Your task to perform on an android device: Open Reddit.com Image 0: 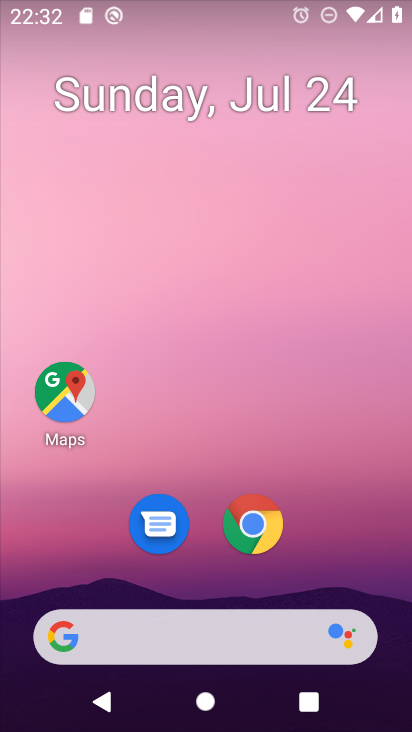
Step 0: click (250, 535)
Your task to perform on an android device: Open Reddit.com Image 1: 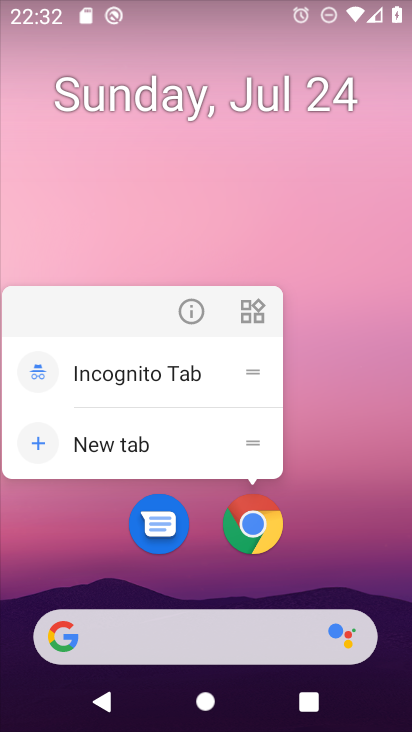
Step 1: click (251, 525)
Your task to perform on an android device: Open Reddit.com Image 2: 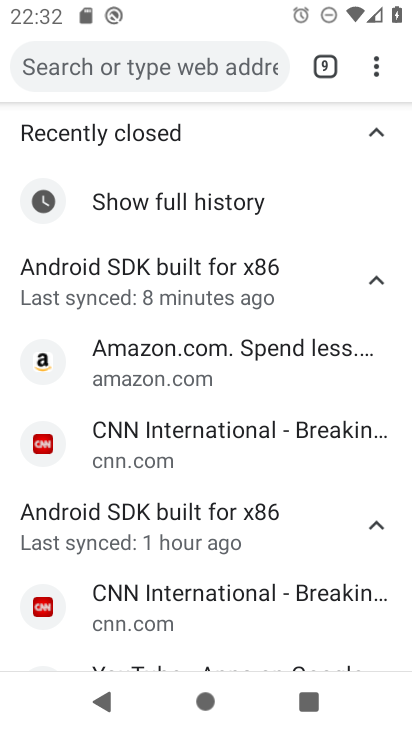
Step 2: drag from (373, 69) to (120, 133)
Your task to perform on an android device: Open Reddit.com Image 3: 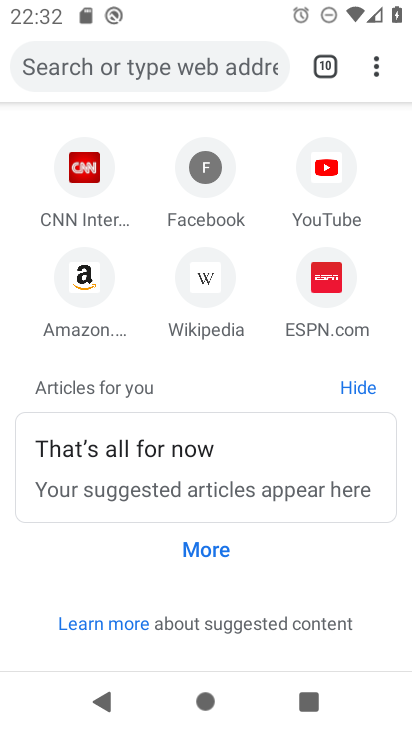
Step 3: click (160, 64)
Your task to perform on an android device: Open Reddit.com Image 4: 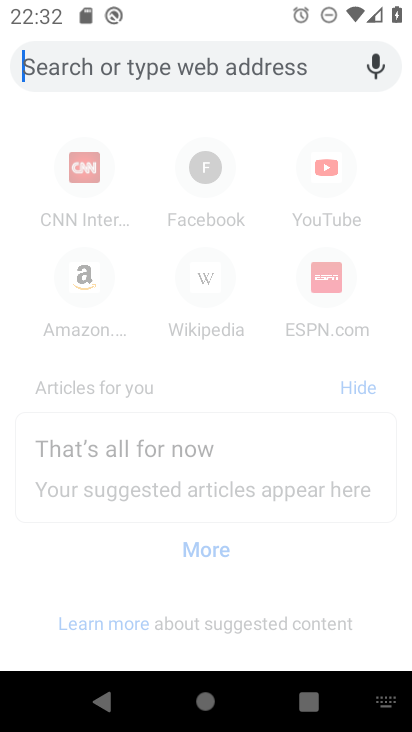
Step 4: type "reddit.com"
Your task to perform on an android device: Open Reddit.com Image 5: 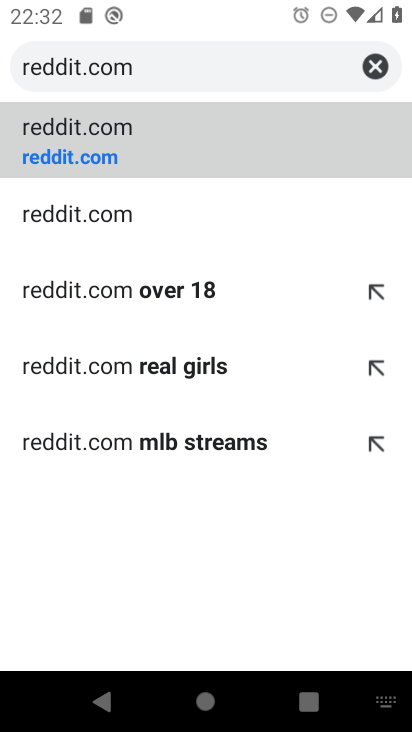
Step 5: click (123, 145)
Your task to perform on an android device: Open Reddit.com Image 6: 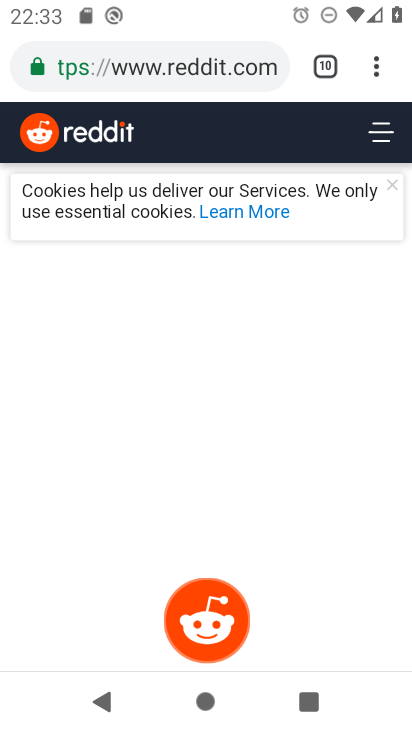
Step 6: task complete